Your task to perform on an android device: turn on translation in the chrome app Image 0: 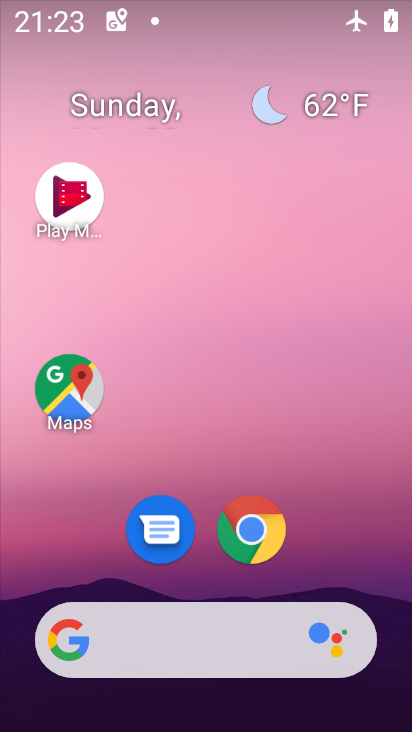
Step 0: drag from (250, 701) to (145, 71)
Your task to perform on an android device: turn on translation in the chrome app Image 1: 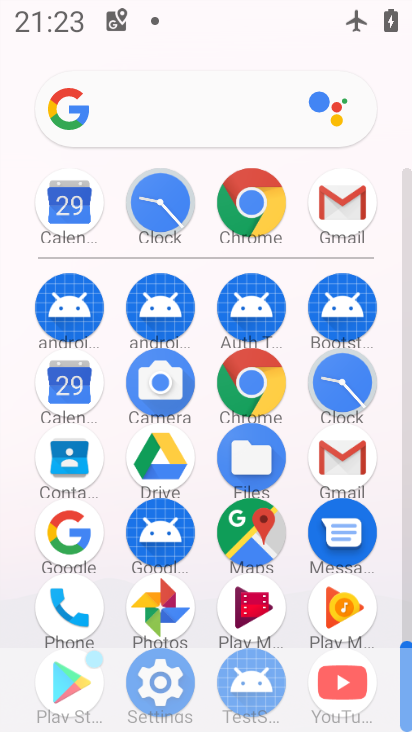
Step 1: click (238, 201)
Your task to perform on an android device: turn on translation in the chrome app Image 2: 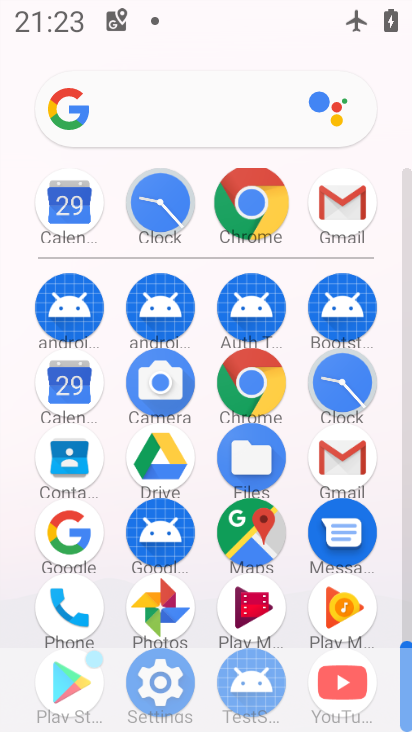
Step 2: click (247, 199)
Your task to perform on an android device: turn on translation in the chrome app Image 3: 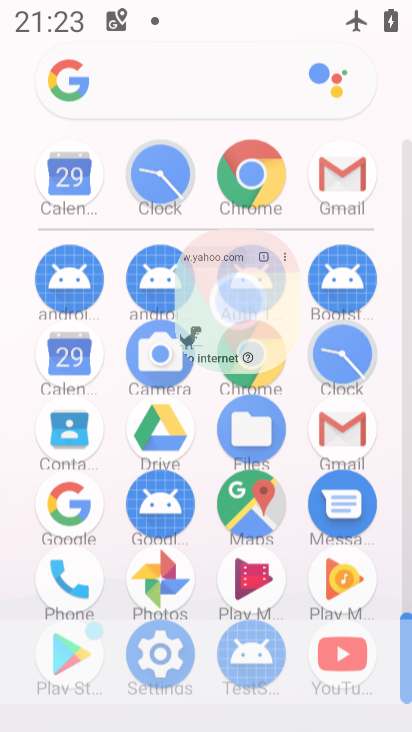
Step 3: click (247, 199)
Your task to perform on an android device: turn on translation in the chrome app Image 4: 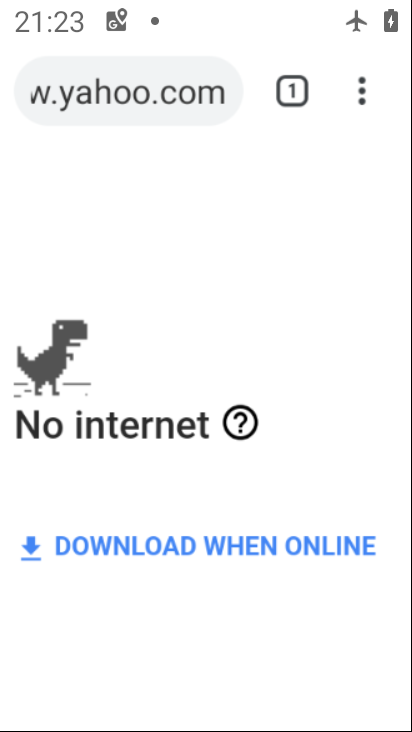
Step 4: click (245, 200)
Your task to perform on an android device: turn on translation in the chrome app Image 5: 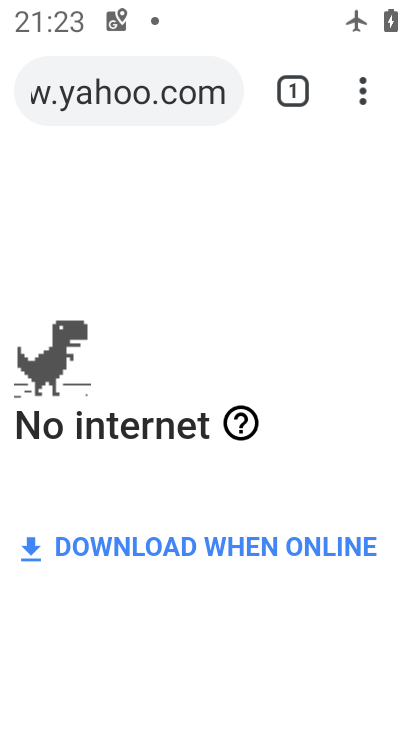
Step 5: click (365, 95)
Your task to perform on an android device: turn on translation in the chrome app Image 6: 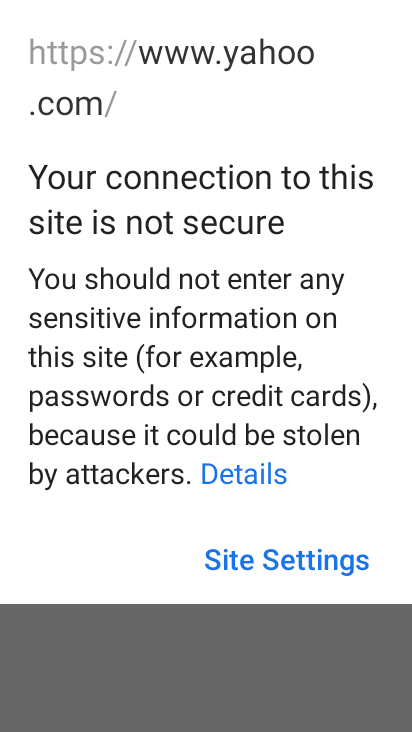
Step 6: click (238, 648)
Your task to perform on an android device: turn on translation in the chrome app Image 7: 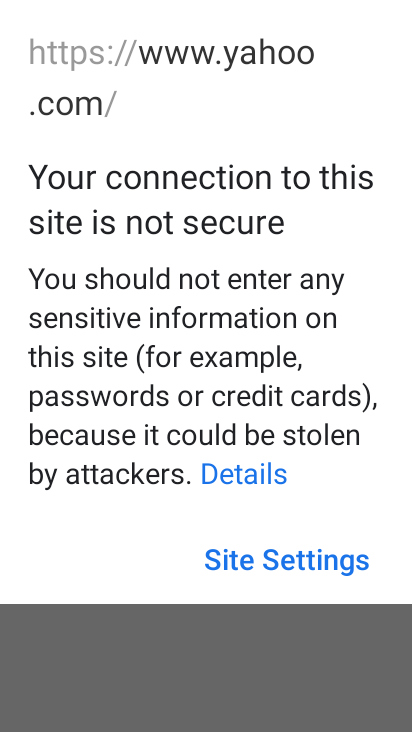
Step 7: click (224, 645)
Your task to perform on an android device: turn on translation in the chrome app Image 8: 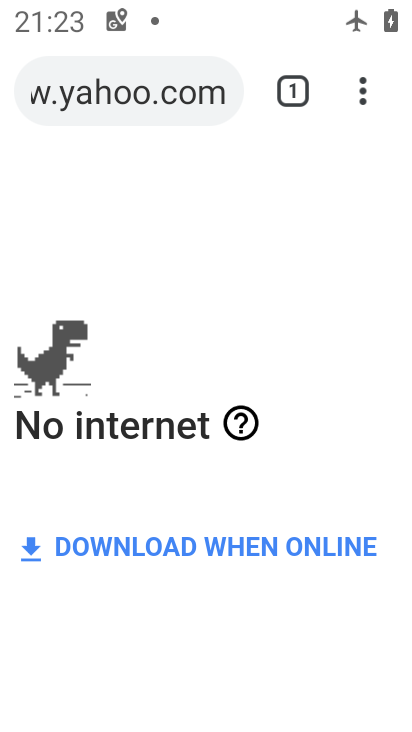
Step 8: click (267, 596)
Your task to perform on an android device: turn on translation in the chrome app Image 9: 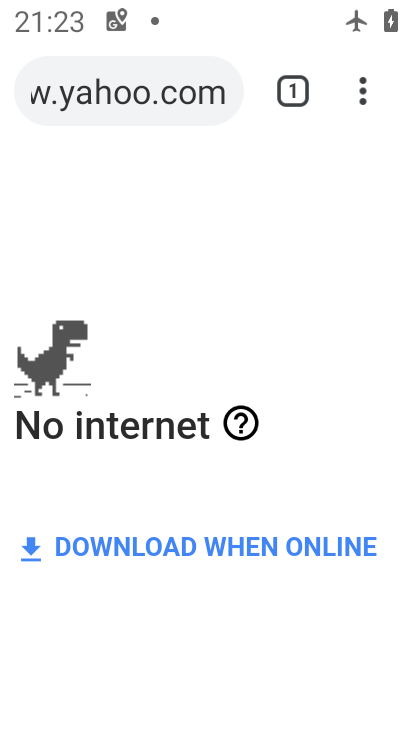
Step 9: click (267, 595)
Your task to perform on an android device: turn on translation in the chrome app Image 10: 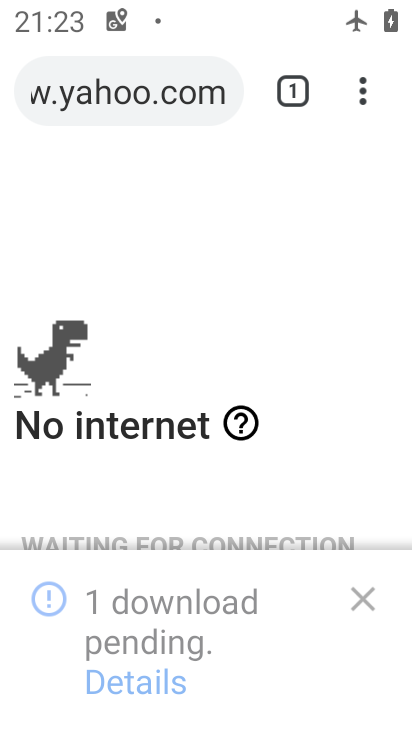
Step 10: click (267, 595)
Your task to perform on an android device: turn on translation in the chrome app Image 11: 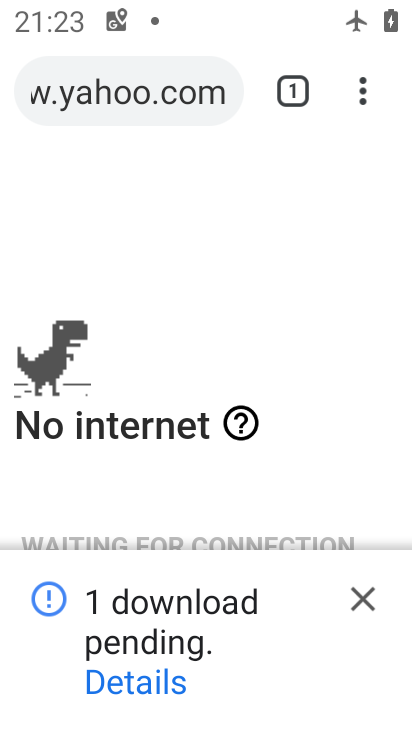
Step 11: click (267, 595)
Your task to perform on an android device: turn on translation in the chrome app Image 12: 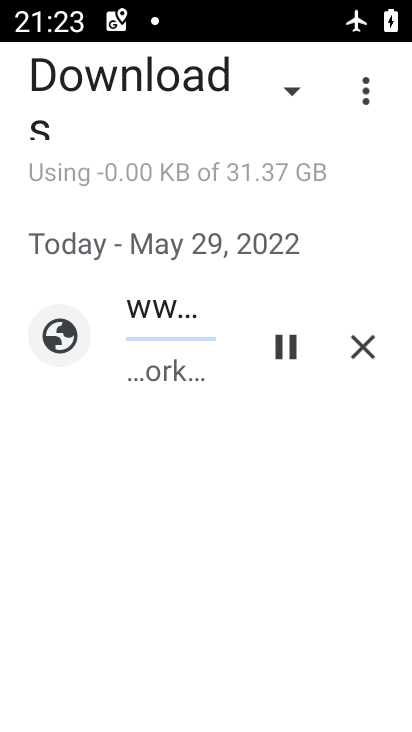
Step 12: drag from (364, 92) to (395, 303)
Your task to perform on an android device: turn on translation in the chrome app Image 13: 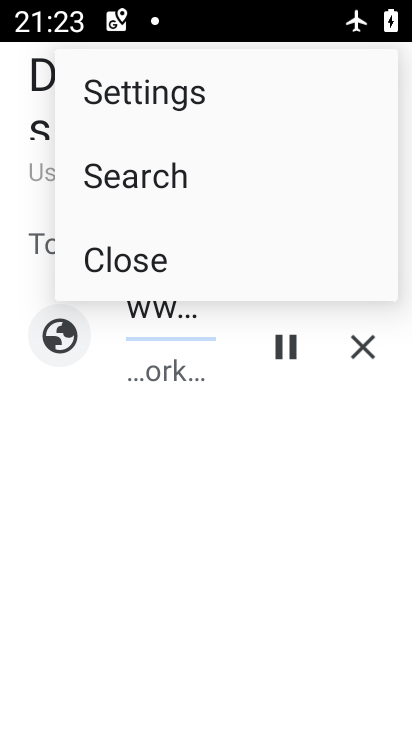
Step 13: press back button
Your task to perform on an android device: turn on translation in the chrome app Image 14: 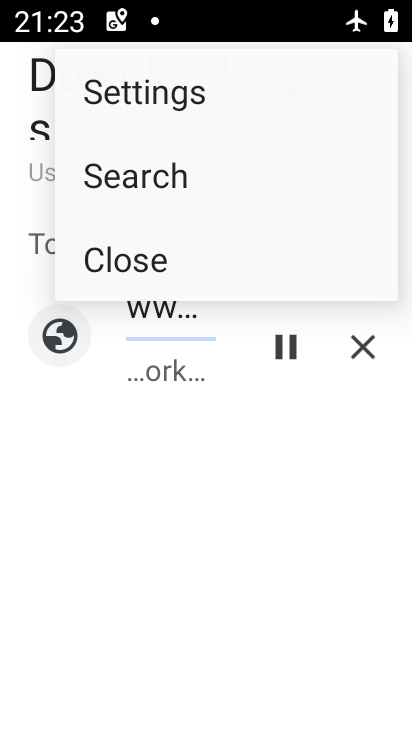
Step 14: press back button
Your task to perform on an android device: turn on translation in the chrome app Image 15: 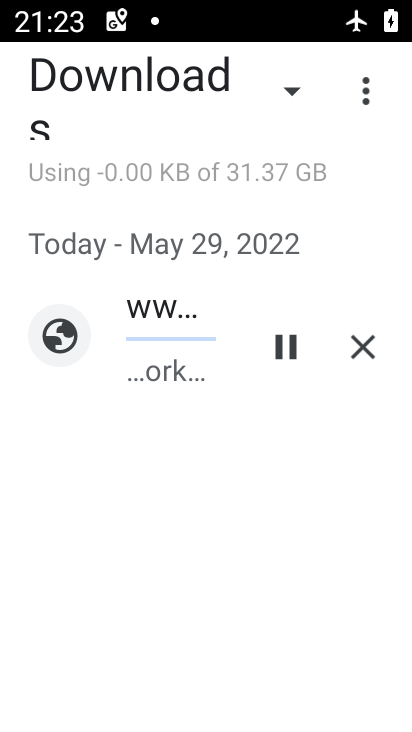
Step 15: press back button
Your task to perform on an android device: turn on translation in the chrome app Image 16: 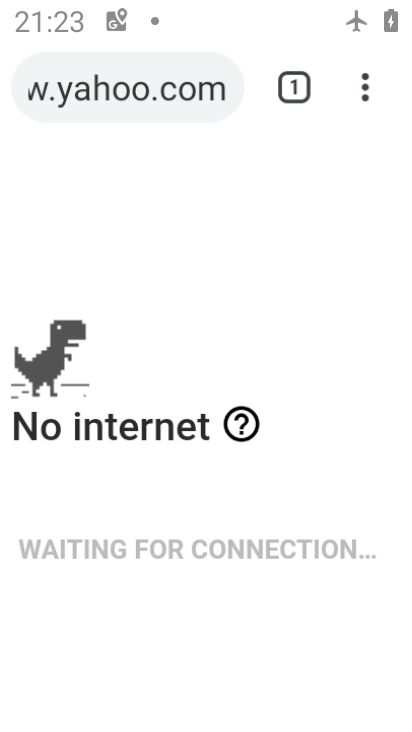
Step 16: press back button
Your task to perform on an android device: turn on translation in the chrome app Image 17: 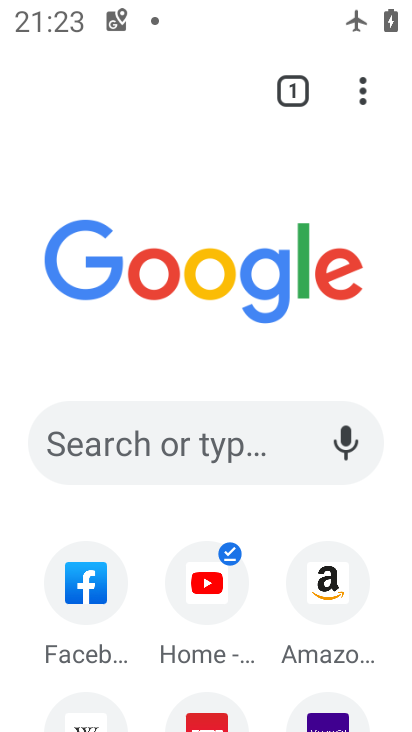
Step 17: click (318, 273)
Your task to perform on an android device: turn on translation in the chrome app Image 18: 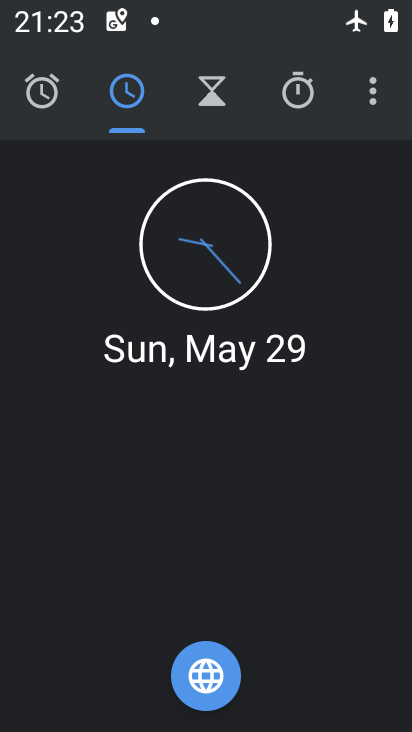
Step 18: press home button
Your task to perform on an android device: turn on translation in the chrome app Image 19: 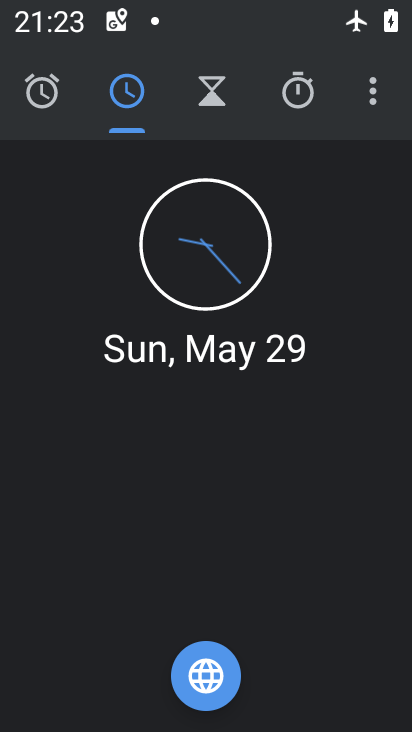
Step 19: press home button
Your task to perform on an android device: turn on translation in the chrome app Image 20: 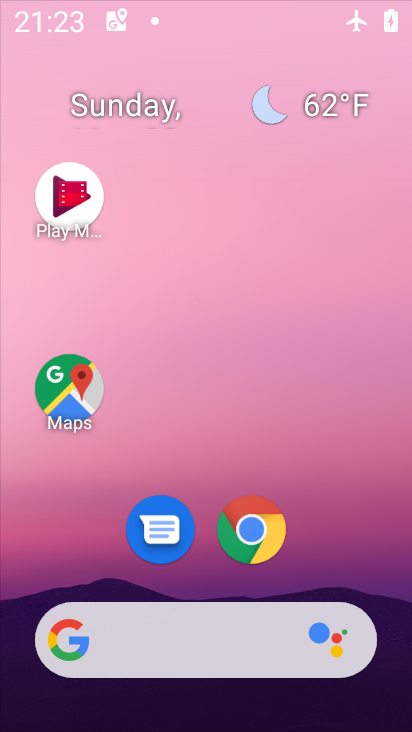
Step 20: press home button
Your task to perform on an android device: turn on translation in the chrome app Image 21: 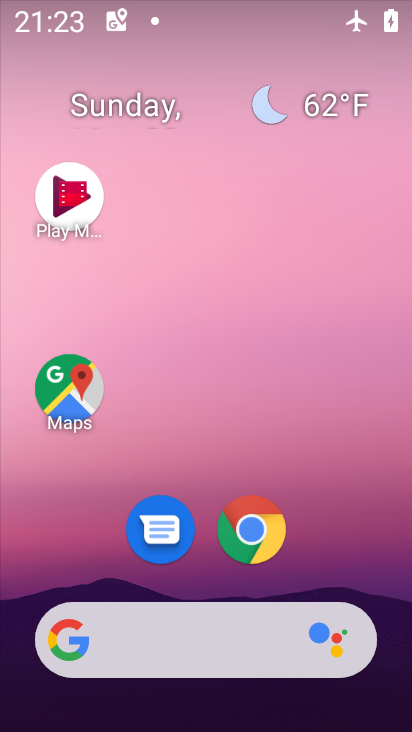
Step 21: drag from (298, 705) to (255, 126)
Your task to perform on an android device: turn on translation in the chrome app Image 22: 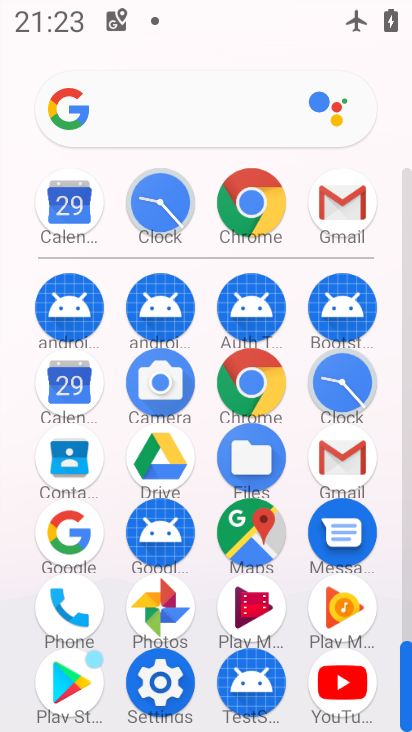
Step 22: click (250, 199)
Your task to perform on an android device: turn on translation in the chrome app Image 23: 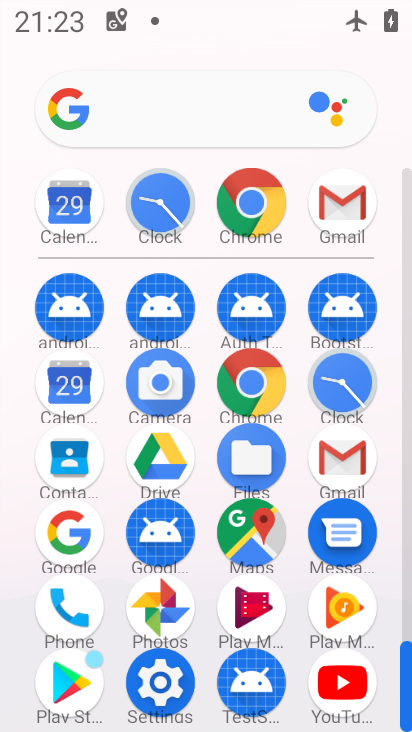
Step 23: click (257, 192)
Your task to perform on an android device: turn on translation in the chrome app Image 24: 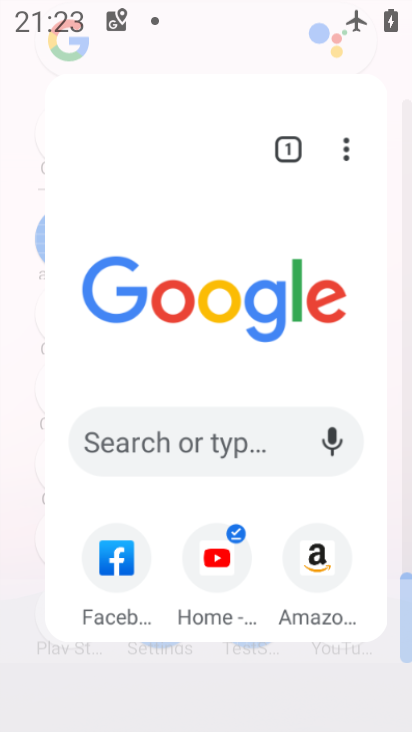
Step 24: click (257, 192)
Your task to perform on an android device: turn on translation in the chrome app Image 25: 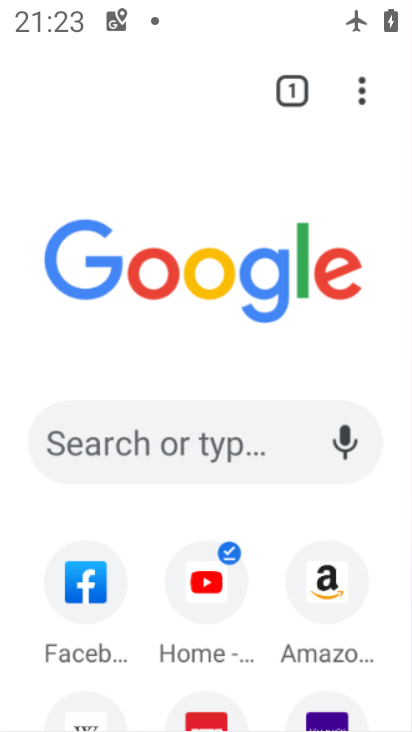
Step 25: click (259, 190)
Your task to perform on an android device: turn on translation in the chrome app Image 26: 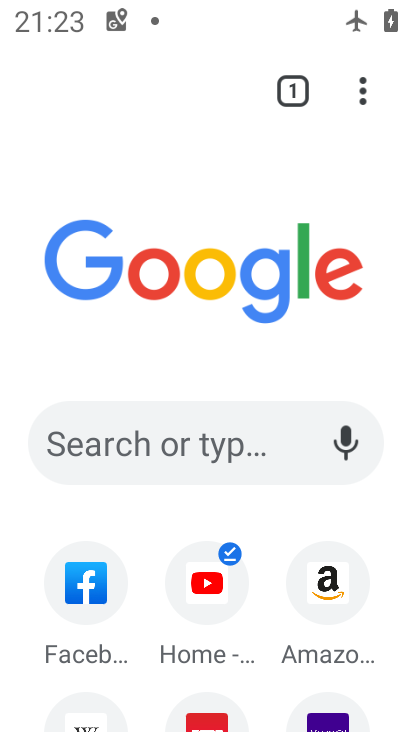
Step 26: click (360, 97)
Your task to perform on an android device: turn on translation in the chrome app Image 27: 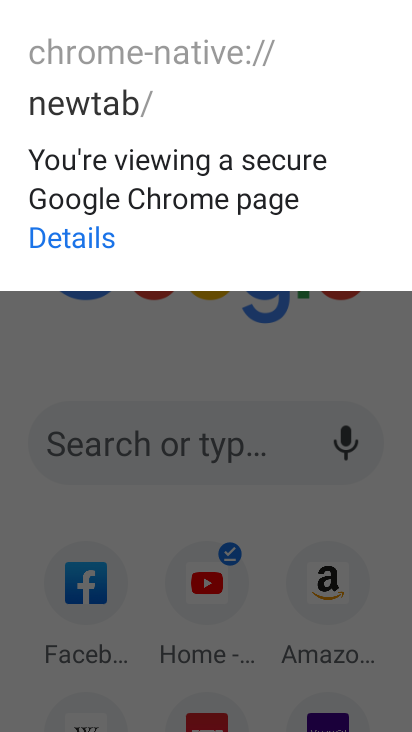
Step 27: click (305, 354)
Your task to perform on an android device: turn on translation in the chrome app Image 28: 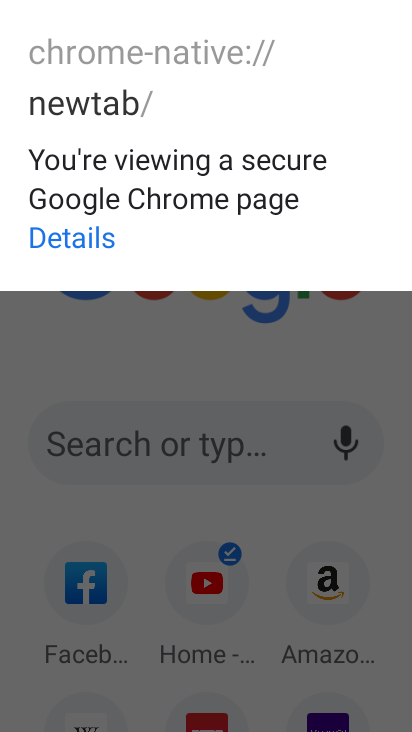
Step 28: click (305, 354)
Your task to perform on an android device: turn on translation in the chrome app Image 29: 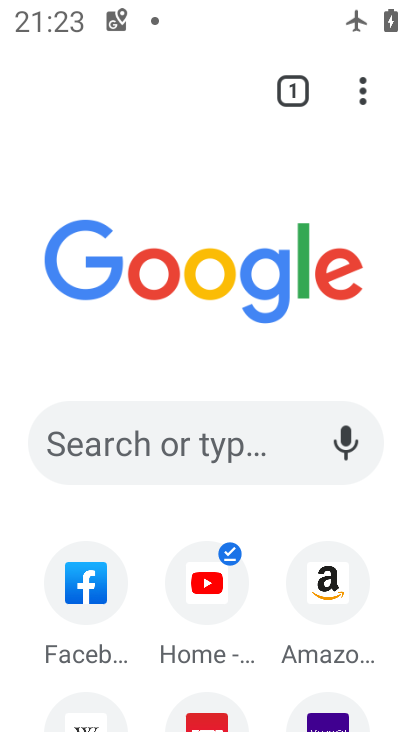
Step 29: click (311, 354)
Your task to perform on an android device: turn on translation in the chrome app Image 30: 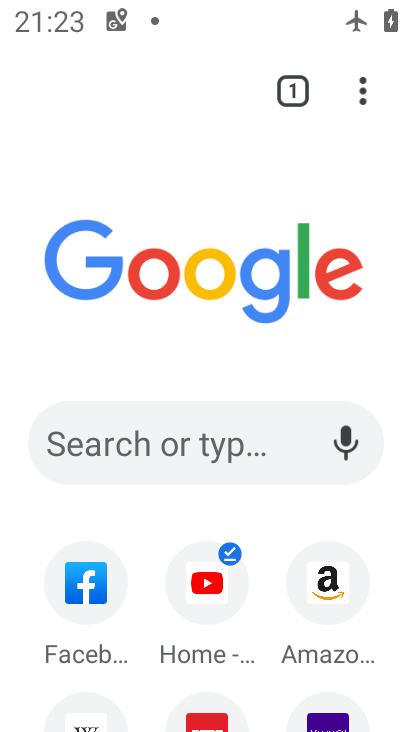
Step 30: click (311, 354)
Your task to perform on an android device: turn on translation in the chrome app Image 31: 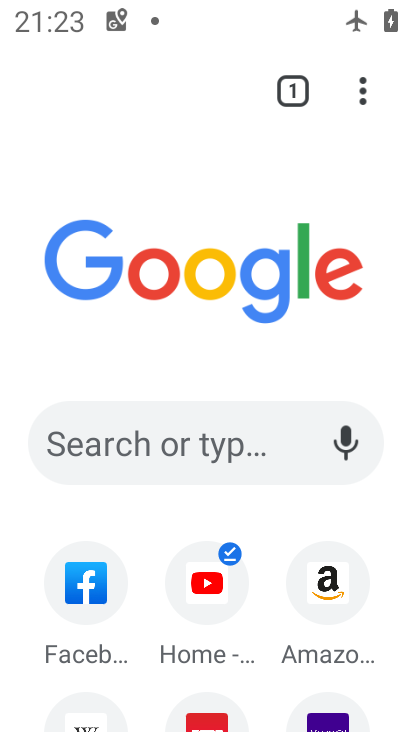
Step 31: drag from (357, 90) to (116, 552)
Your task to perform on an android device: turn on translation in the chrome app Image 32: 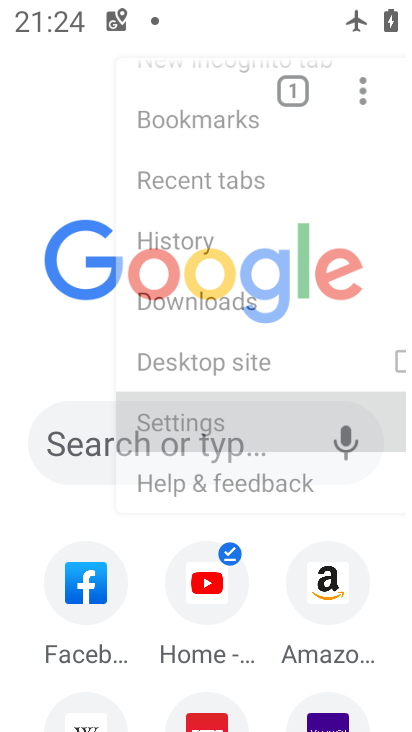
Step 32: click (116, 552)
Your task to perform on an android device: turn on translation in the chrome app Image 33: 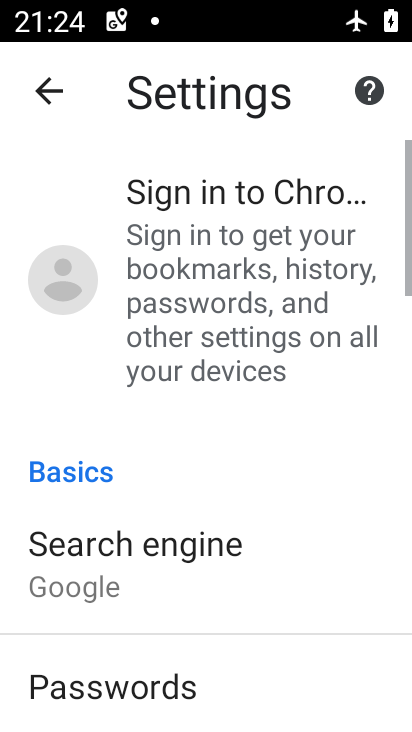
Step 33: drag from (173, 573) to (173, 126)
Your task to perform on an android device: turn on translation in the chrome app Image 34: 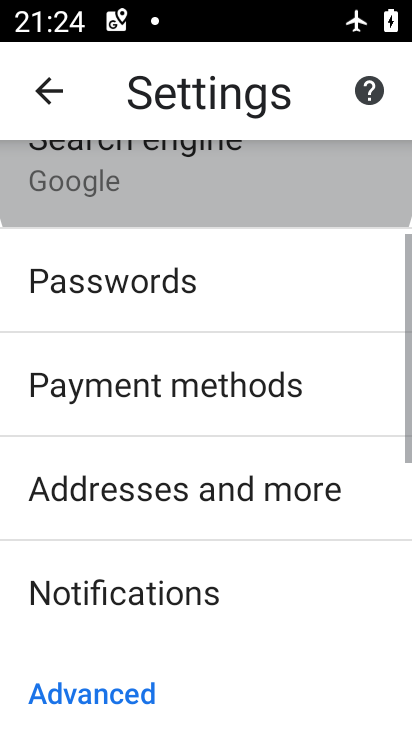
Step 34: drag from (204, 451) to (201, 23)
Your task to perform on an android device: turn on translation in the chrome app Image 35: 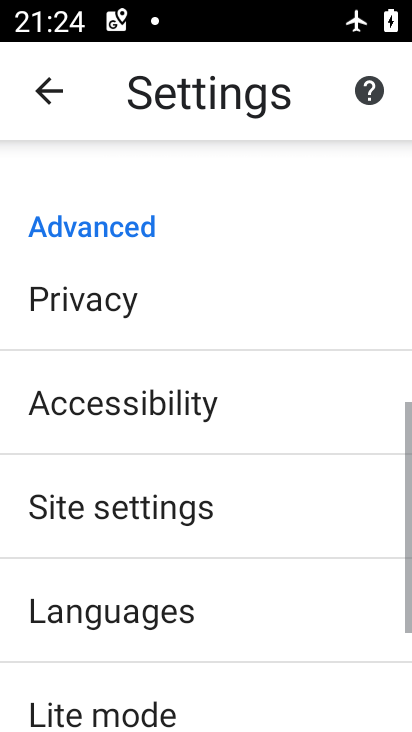
Step 35: drag from (142, 383) to (142, 48)
Your task to perform on an android device: turn on translation in the chrome app Image 36: 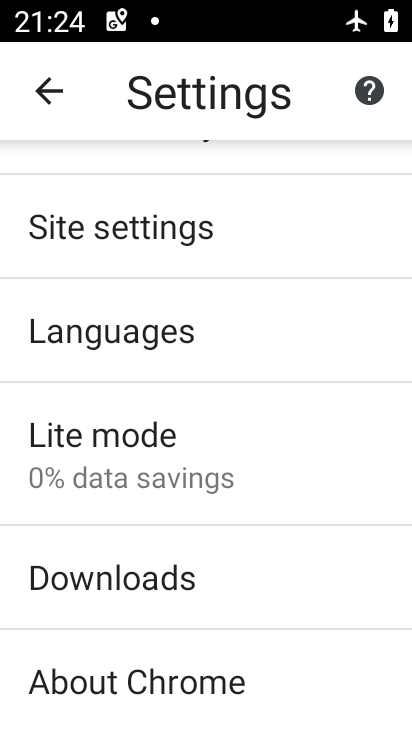
Step 36: click (105, 335)
Your task to perform on an android device: turn on translation in the chrome app Image 37: 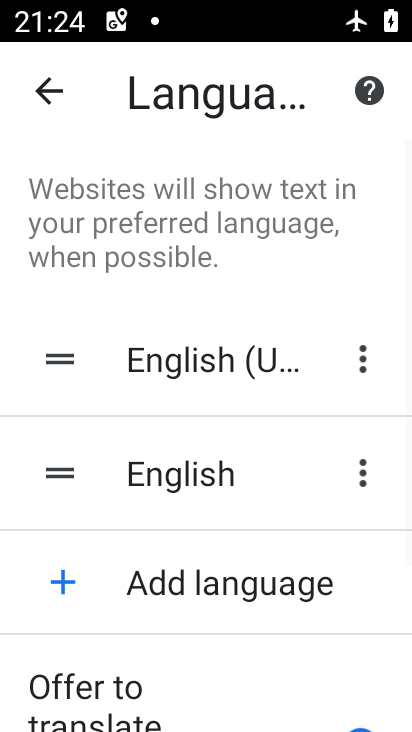
Step 37: task complete